Your task to perform on an android device: Open Chrome and go to the settings page Image 0: 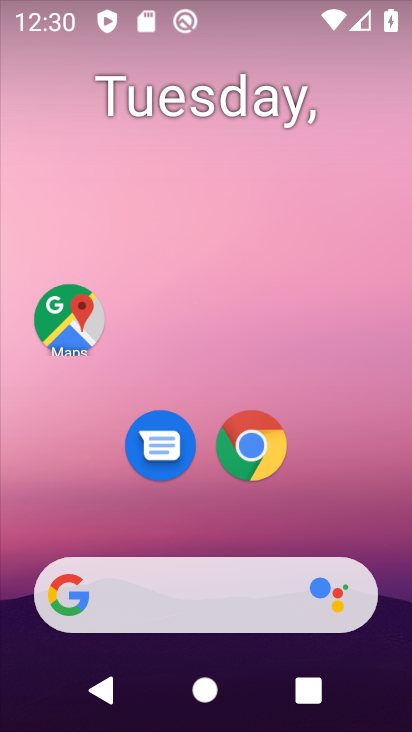
Step 0: click (241, 444)
Your task to perform on an android device: Open Chrome and go to the settings page Image 1: 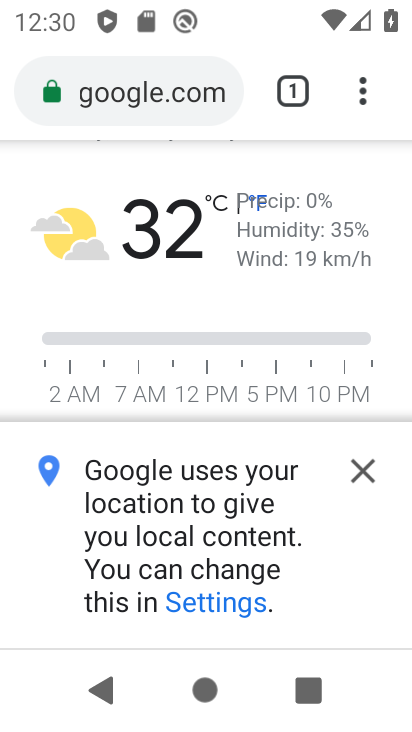
Step 1: click (366, 94)
Your task to perform on an android device: Open Chrome and go to the settings page Image 2: 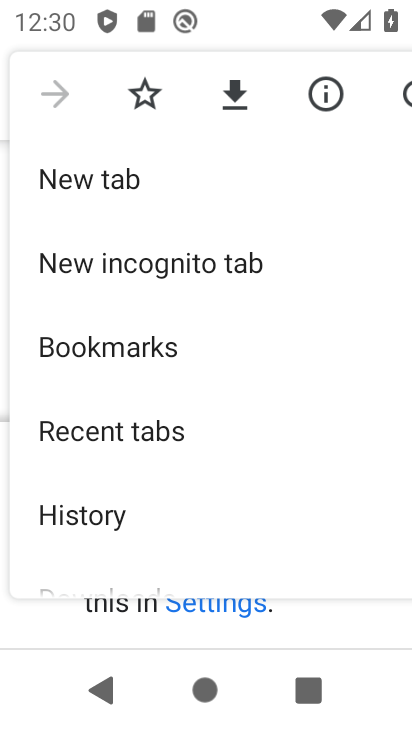
Step 2: drag from (158, 510) to (220, 150)
Your task to perform on an android device: Open Chrome and go to the settings page Image 3: 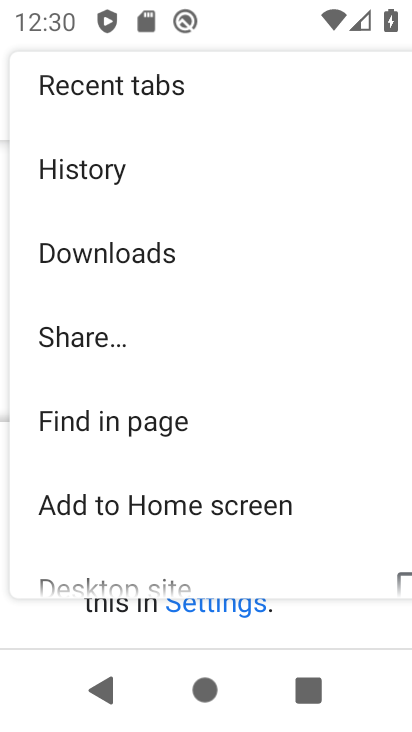
Step 3: drag from (243, 536) to (293, 210)
Your task to perform on an android device: Open Chrome and go to the settings page Image 4: 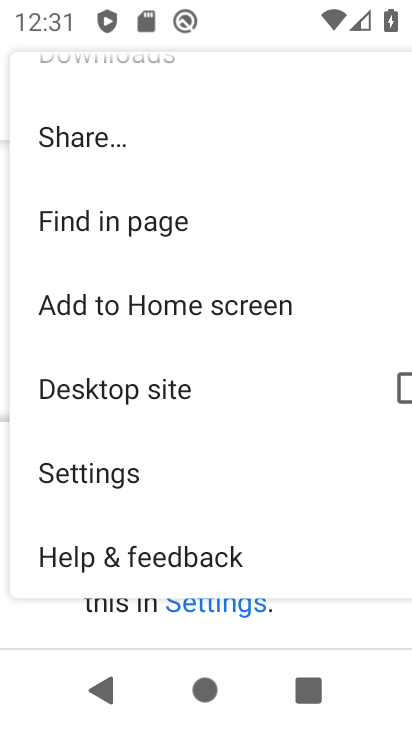
Step 4: click (123, 471)
Your task to perform on an android device: Open Chrome and go to the settings page Image 5: 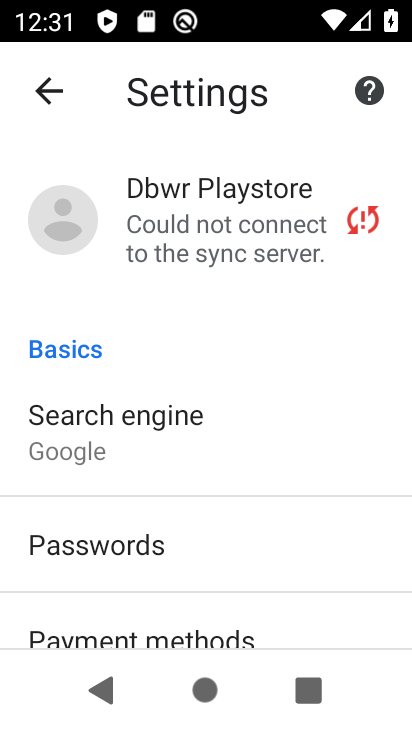
Step 5: task complete